Your task to perform on an android device: turn on improve location accuracy Image 0: 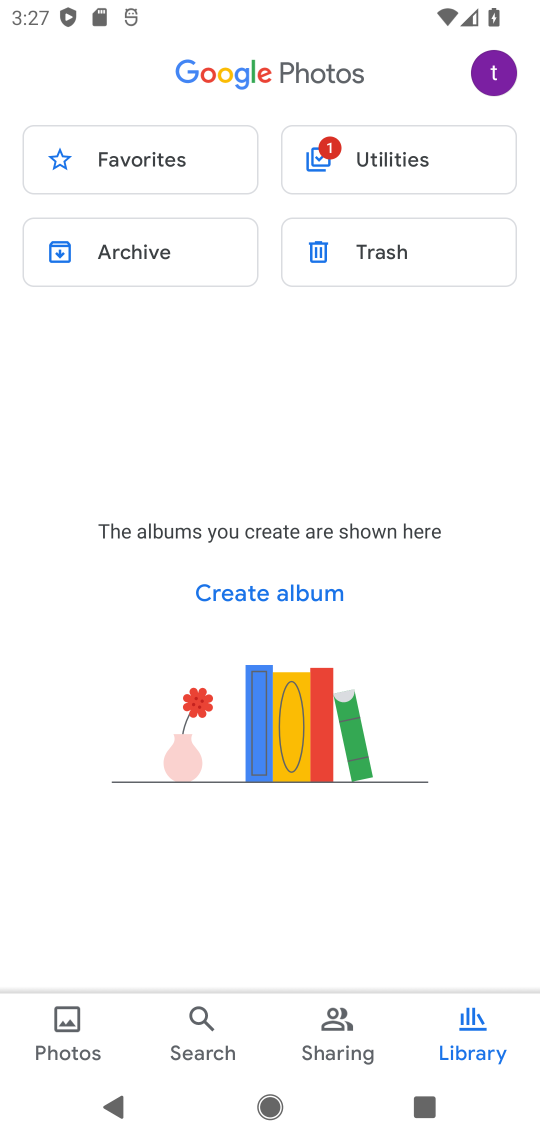
Step 0: press home button
Your task to perform on an android device: turn on improve location accuracy Image 1: 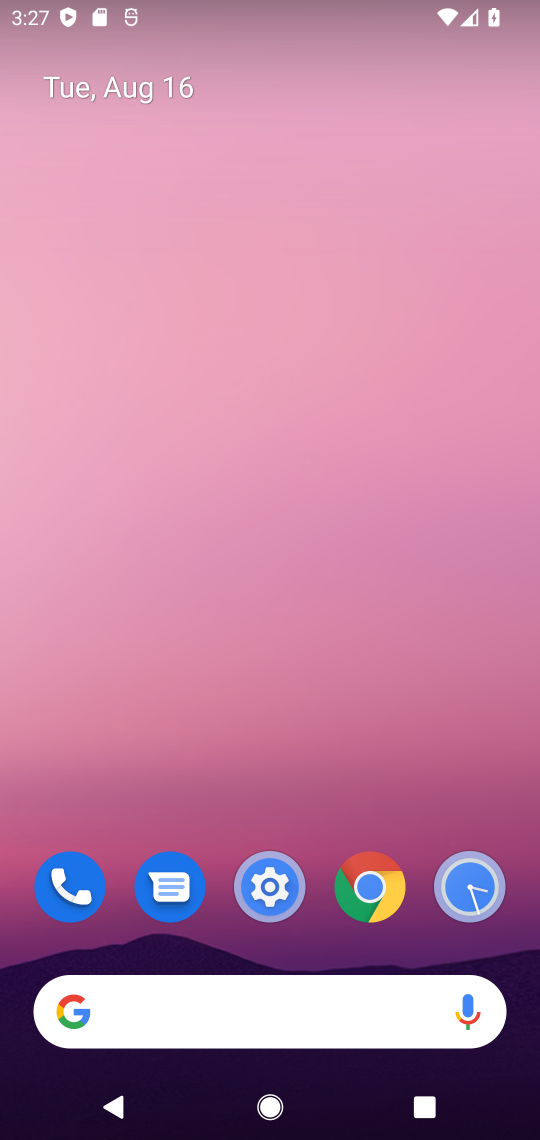
Step 1: drag from (317, 838) to (452, 263)
Your task to perform on an android device: turn on improve location accuracy Image 2: 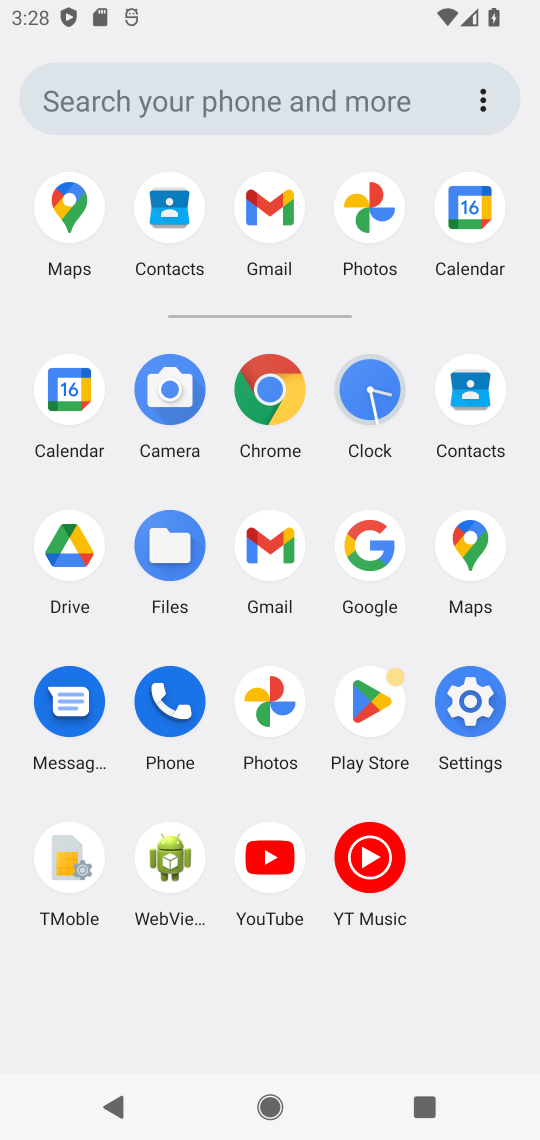
Step 2: click (466, 714)
Your task to perform on an android device: turn on improve location accuracy Image 3: 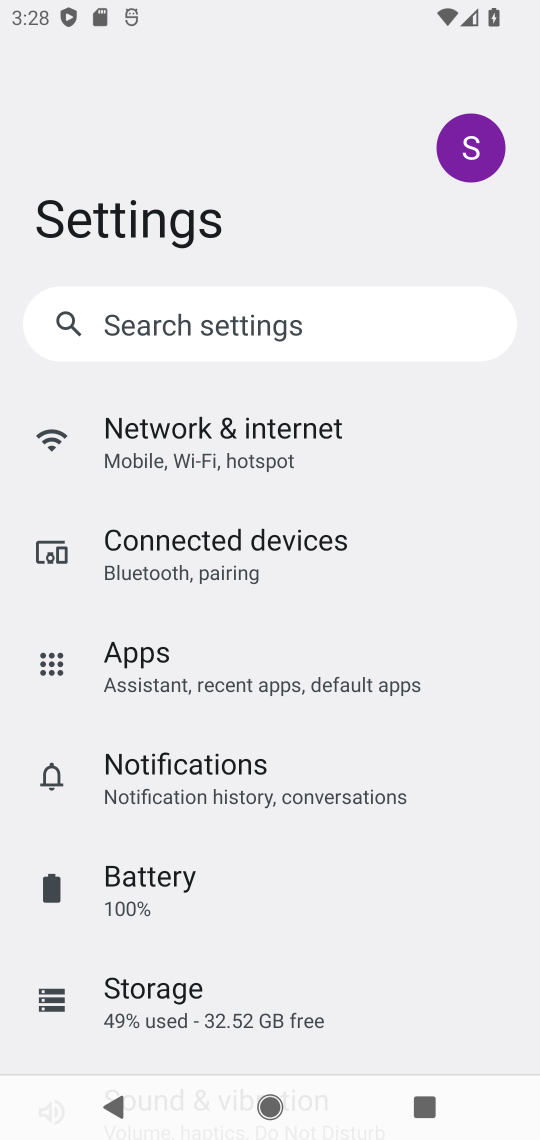
Step 3: drag from (328, 932) to (322, 375)
Your task to perform on an android device: turn on improve location accuracy Image 4: 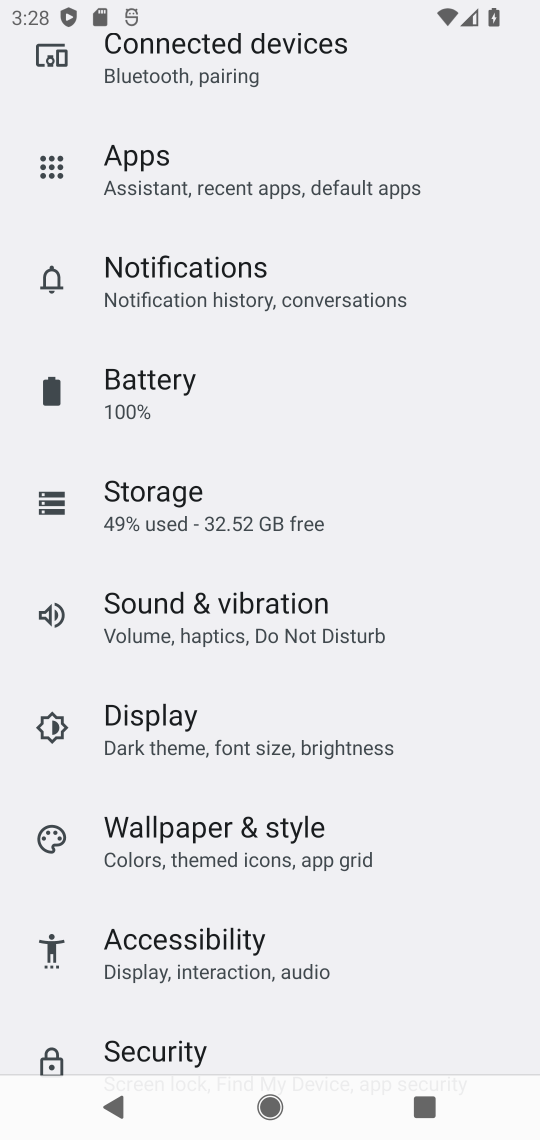
Step 4: drag from (408, 852) to (394, 503)
Your task to perform on an android device: turn on improve location accuracy Image 5: 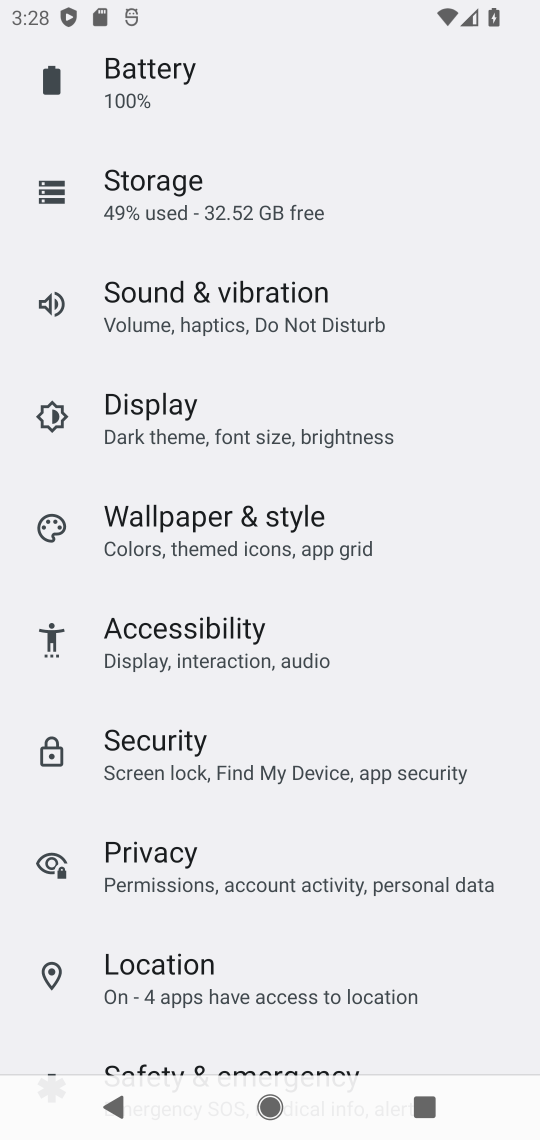
Step 5: click (159, 961)
Your task to perform on an android device: turn on improve location accuracy Image 6: 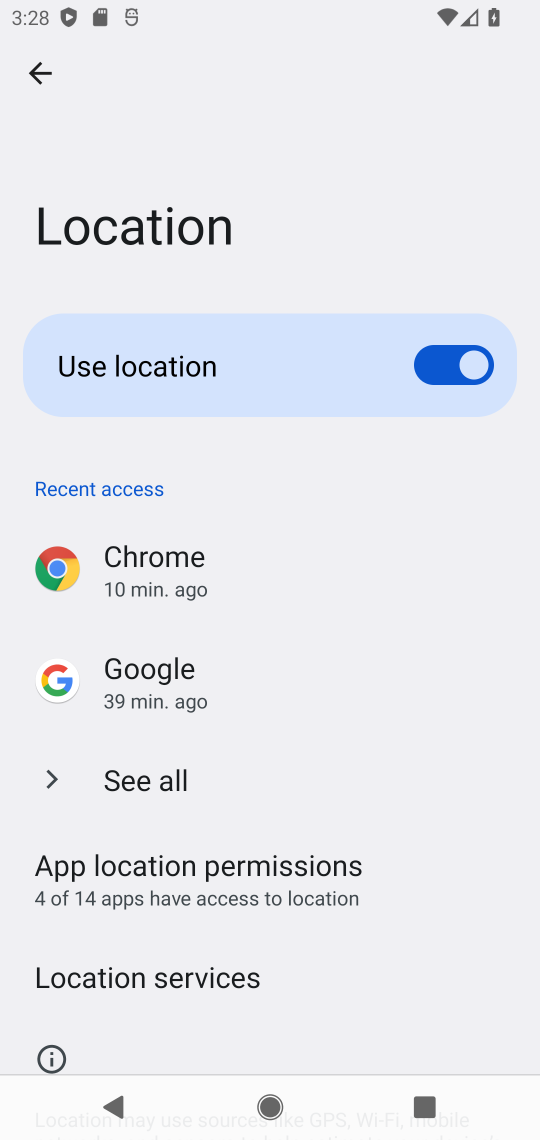
Step 6: drag from (338, 964) to (372, 503)
Your task to perform on an android device: turn on improve location accuracy Image 7: 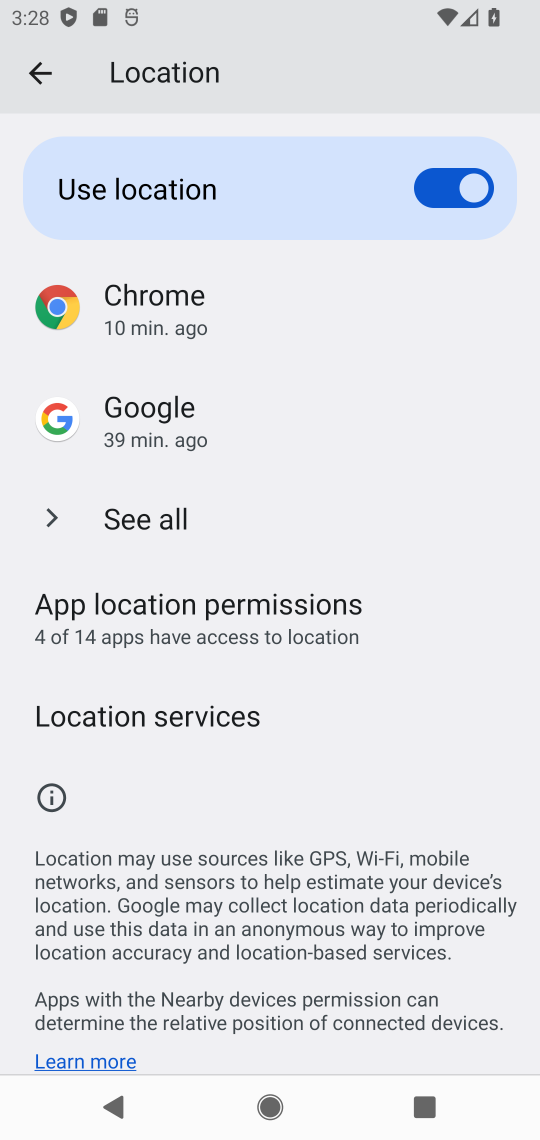
Step 7: click (215, 707)
Your task to perform on an android device: turn on improve location accuracy Image 8: 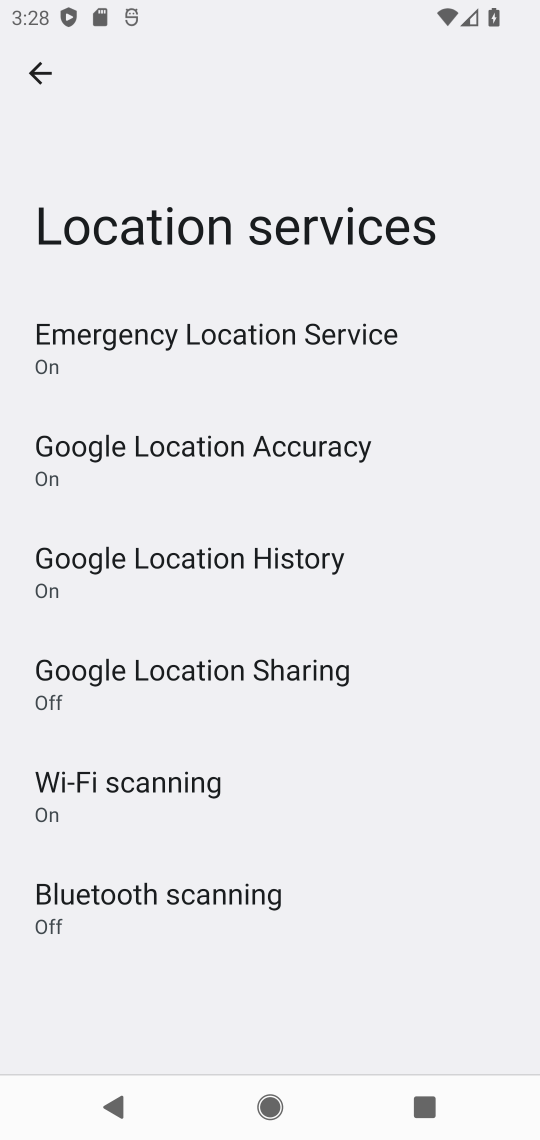
Step 8: click (311, 474)
Your task to perform on an android device: turn on improve location accuracy Image 9: 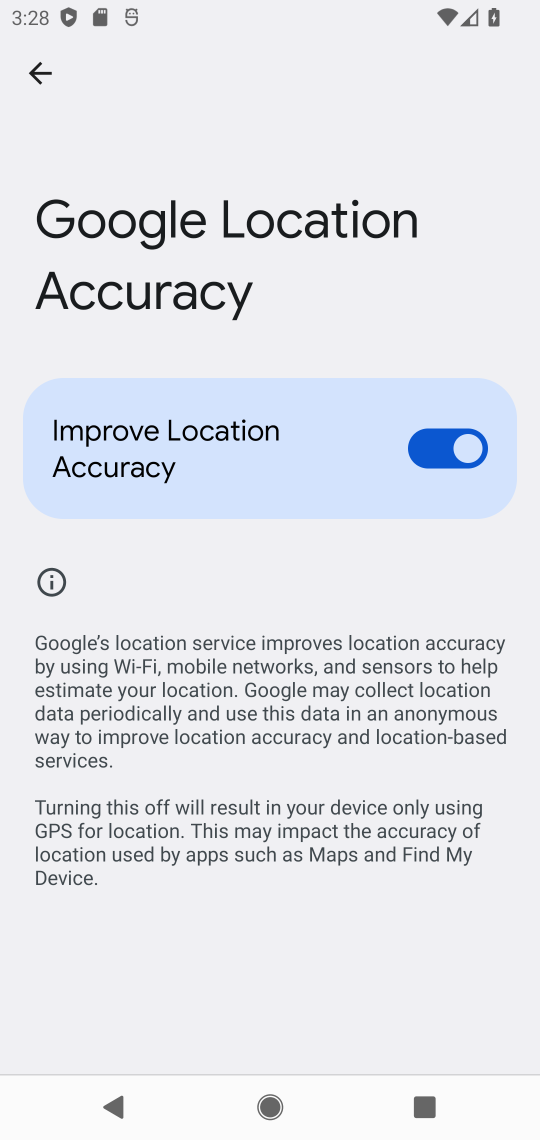
Step 9: task complete